Your task to perform on an android device: open wifi settings Image 0: 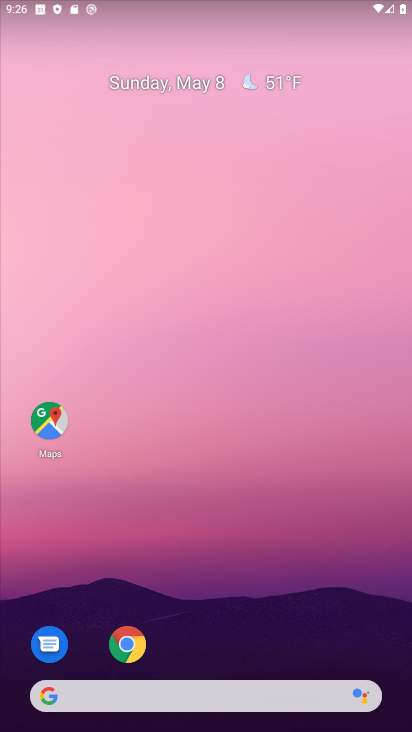
Step 0: drag from (347, 36) to (271, 1)
Your task to perform on an android device: open wifi settings Image 1: 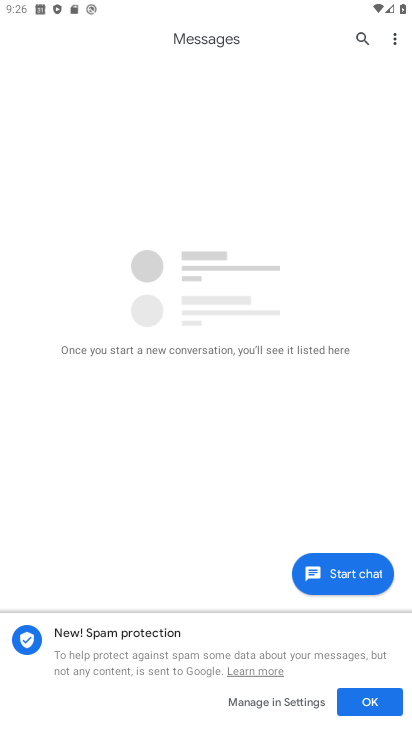
Step 1: drag from (234, 603) to (252, 129)
Your task to perform on an android device: open wifi settings Image 2: 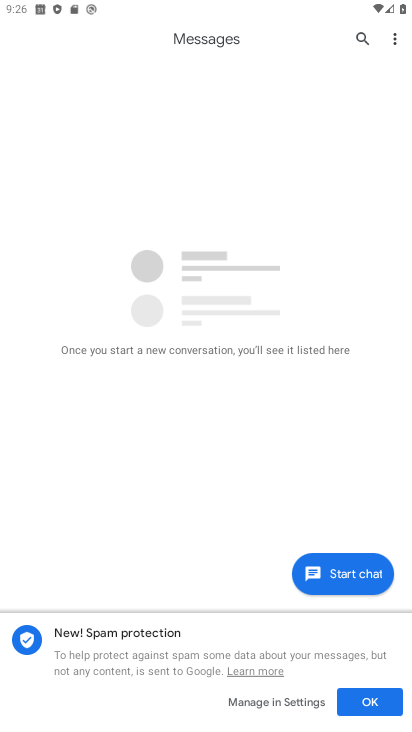
Step 2: press home button
Your task to perform on an android device: open wifi settings Image 3: 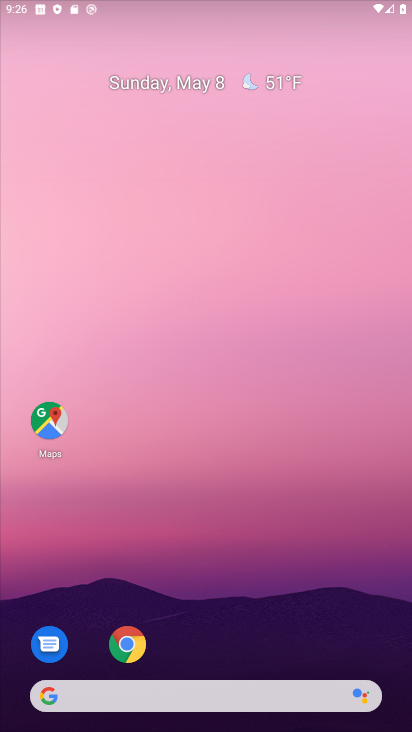
Step 3: drag from (185, 619) to (324, 97)
Your task to perform on an android device: open wifi settings Image 4: 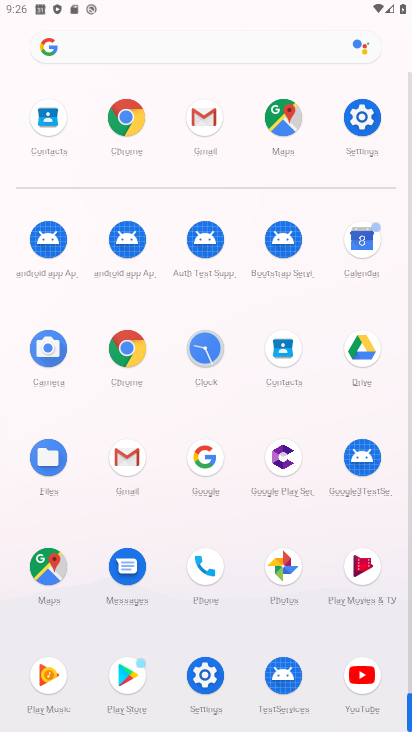
Step 4: click (369, 99)
Your task to perform on an android device: open wifi settings Image 5: 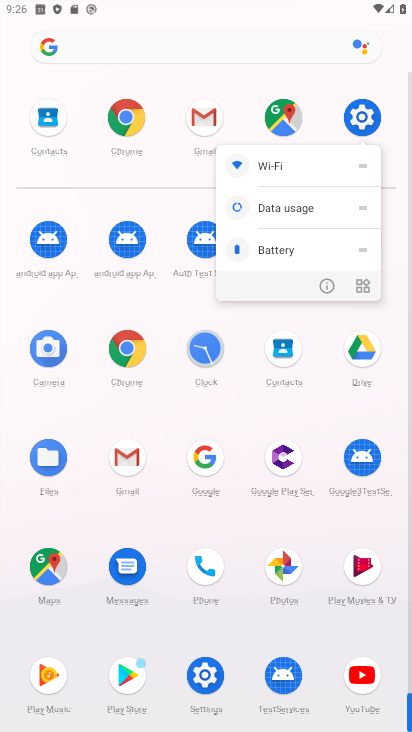
Step 5: click (323, 289)
Your task to perform on an android device: open wifi settings Image 6: 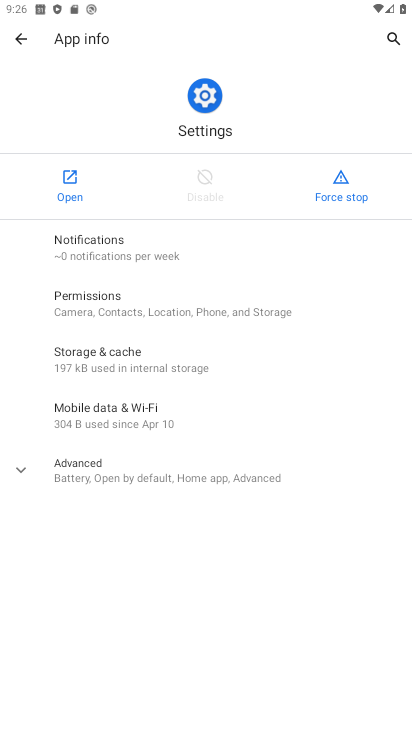
Step 6: click (74, 193)
Your task to perform on an android device: open wifi settings Image 7: 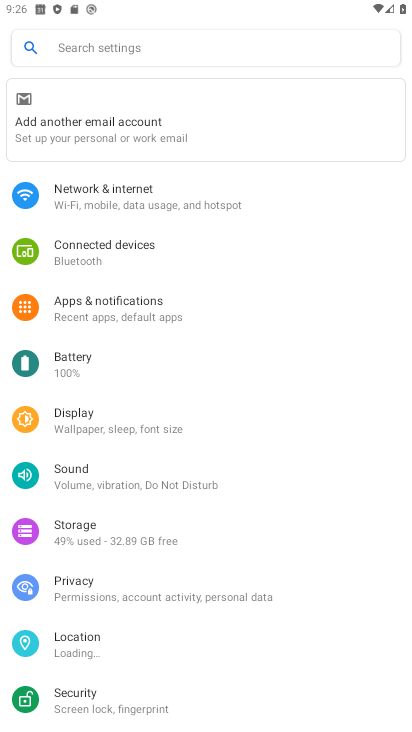
Step 7: drag from (245, 514) to (283, 255)
Your task to perform on an android device: open wifi settings Image 8: 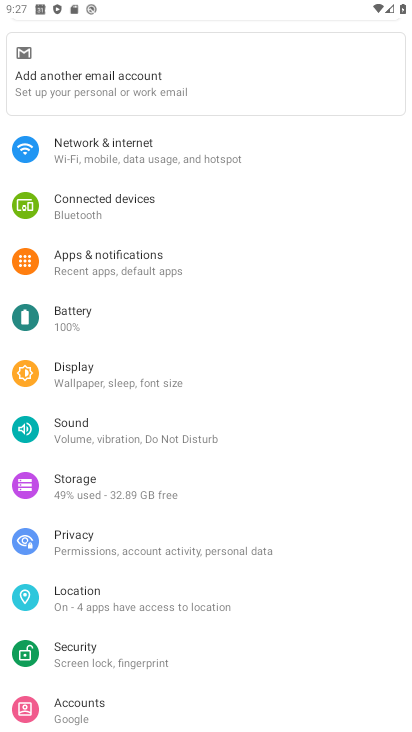
Step 8: drag from (160, 626) to (229, 298)
Your task to perform on an android device: open wifi settings Image 9: 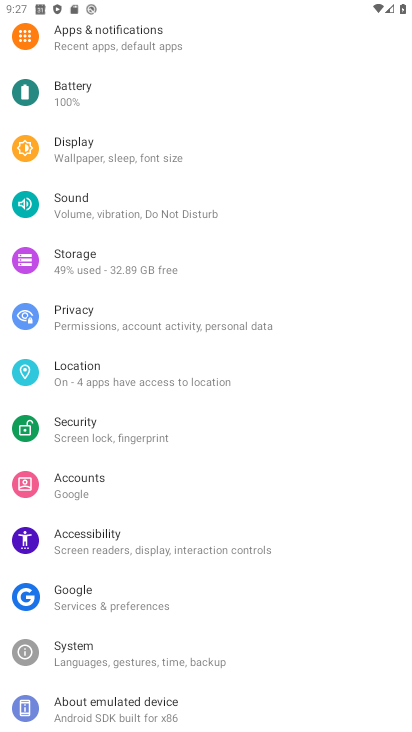
Step 9: drag from (222, 174) to (271, 730)
Your task to perform on an android device: open wifi settings Image 10: 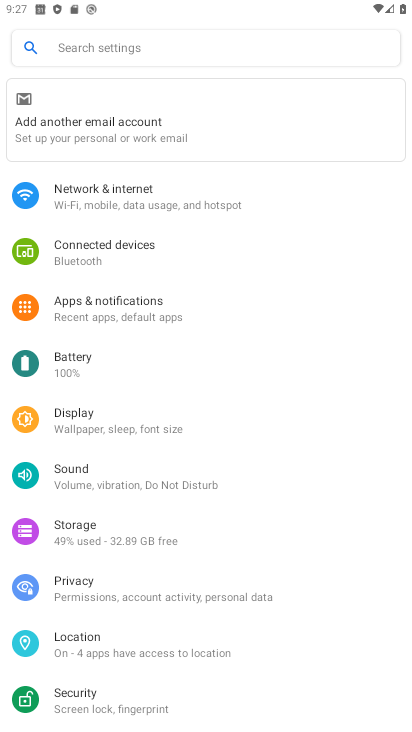
Step 10: click (155, 205)
Your task to perform on an android device: open wifi settings Image 11: 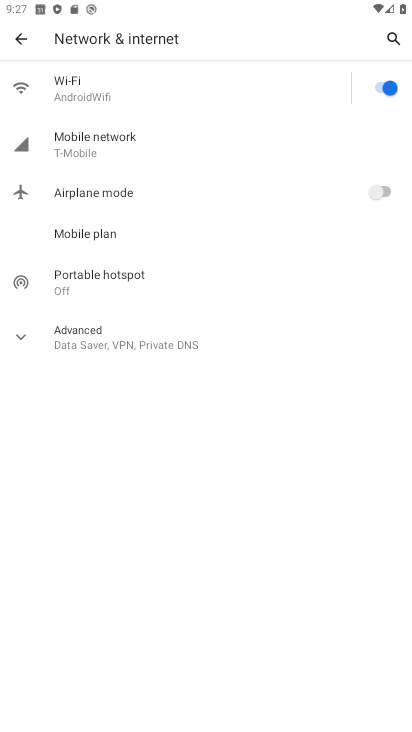
Step 11: click (205, 101)
Your task to perform on an android device: open wifi settings Image 12: 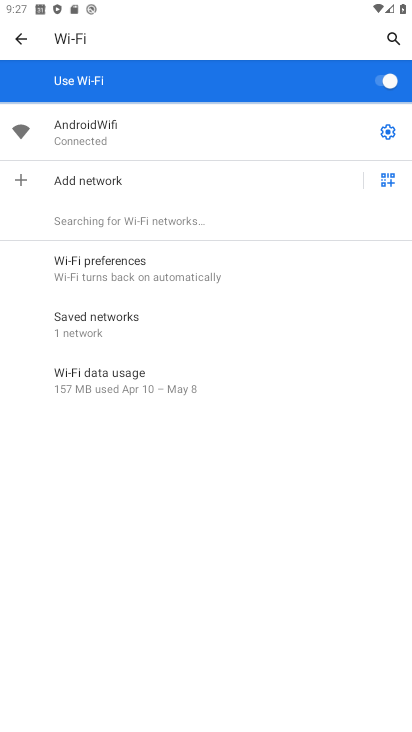
Step 12: task complete